Your task to perform on an android device: see creations saved in the google photos Image 0: 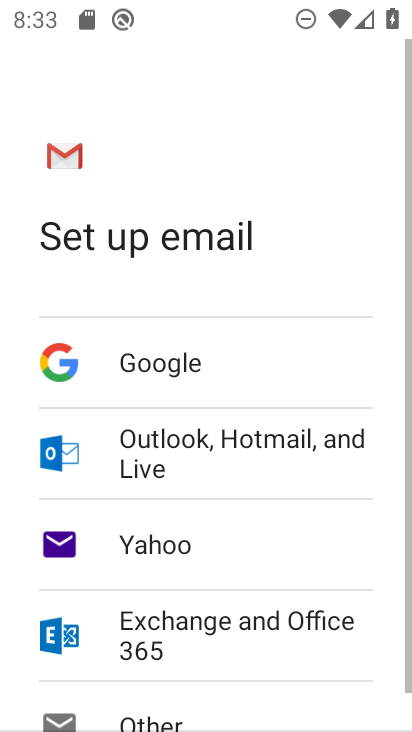
Step 0: press back button
Your task to perform on an android device: see creations saved in the google photos Image 1: 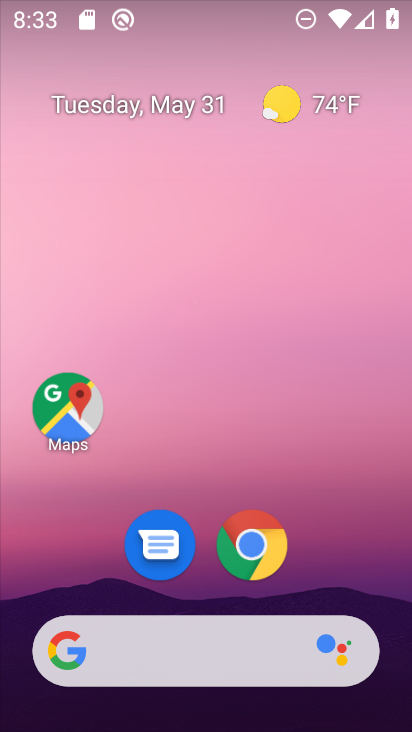
Step 1: drag from (384, 568) to (225, 3)
Your task to perform on an android device: see creations saved in the google photos Image 2: 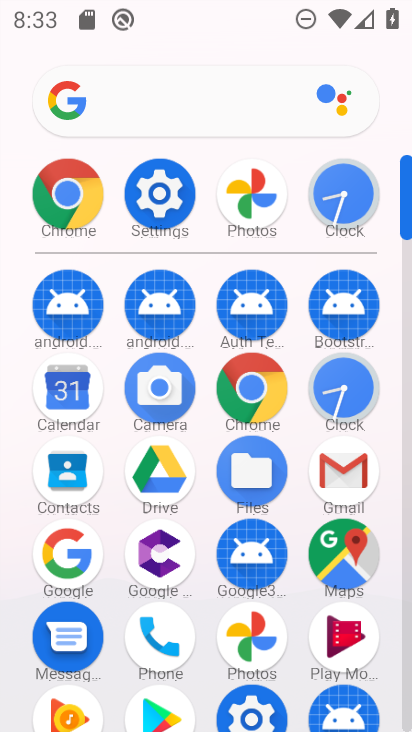
Step 2: drag from (11, 560) to (8, 226)
Your task to perform on an android device: see creations saved in the google photos Image 3: 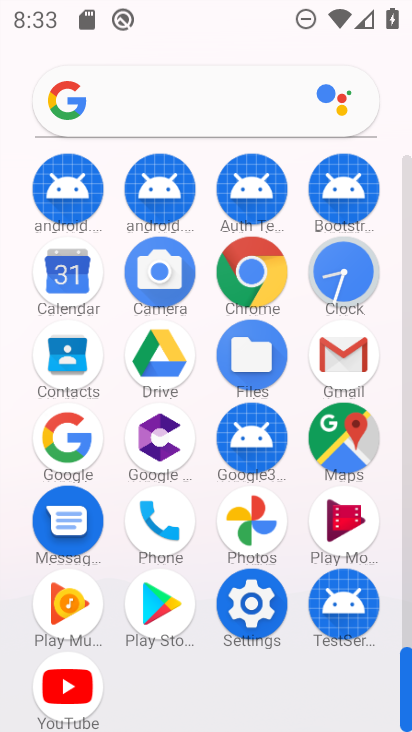
Step 3: click (247, 522)
Your task to perform on an android device: see creations saved in the google photos Image 4: 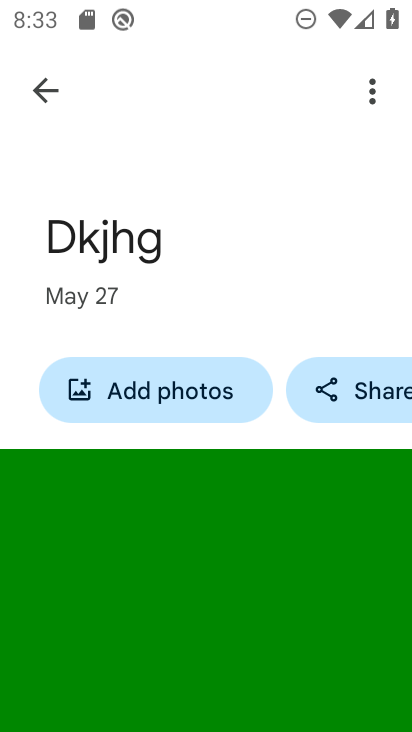
Step 4: drag from (233, 539) to (239, 154)
Your task to perform on an android device: see creations saved in the google photos Image 5: 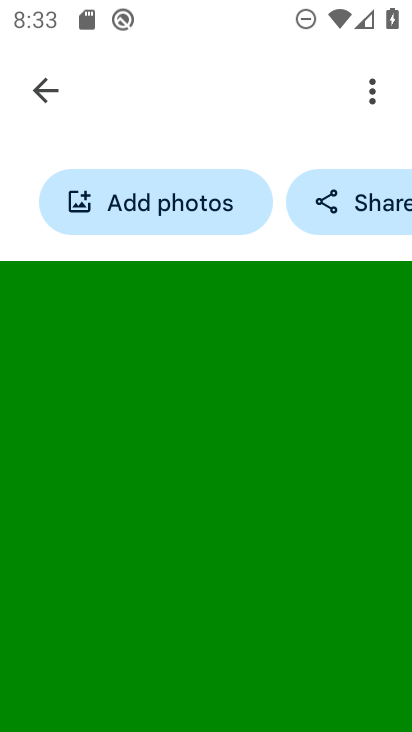
Step 5: drag from (201, 333) to (204, 575)
Your task to perform on an android device: see creations saved in the google photos Image 6: 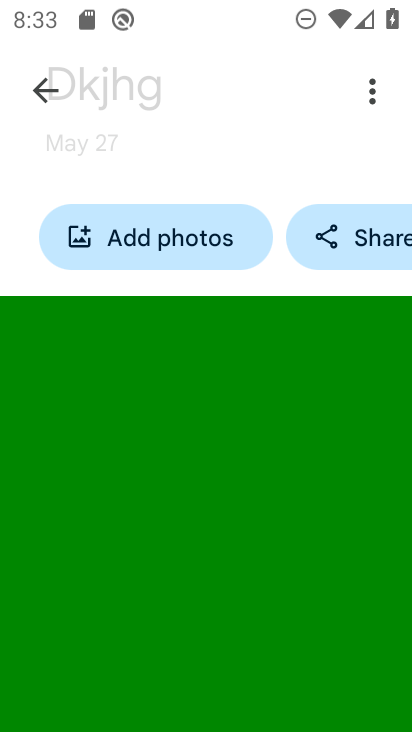
Step 6: click (44, 92)
Your task to perform on an android device: see creations saved in the google photos Image 7: 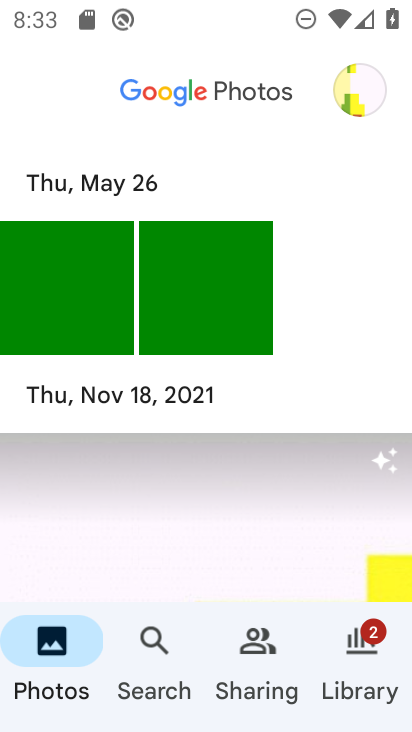
Step 7: click (65, 650)
Your task to perform on an android device: see creations saved in the google photos Image 8: 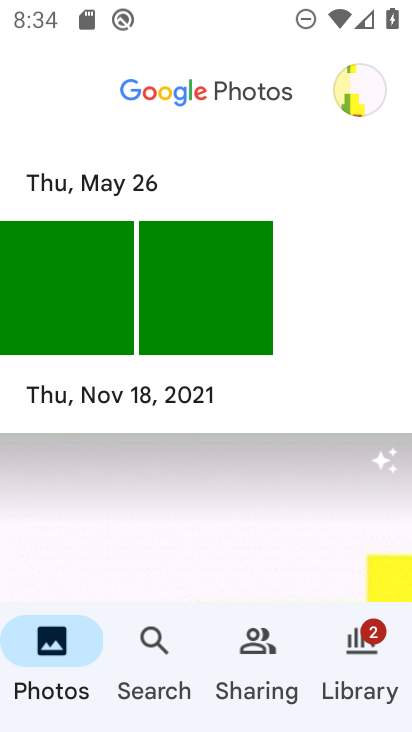
Step 8: task complete